Your task to perform on an android device: Set the phone to "Do not disturb". Image 0: 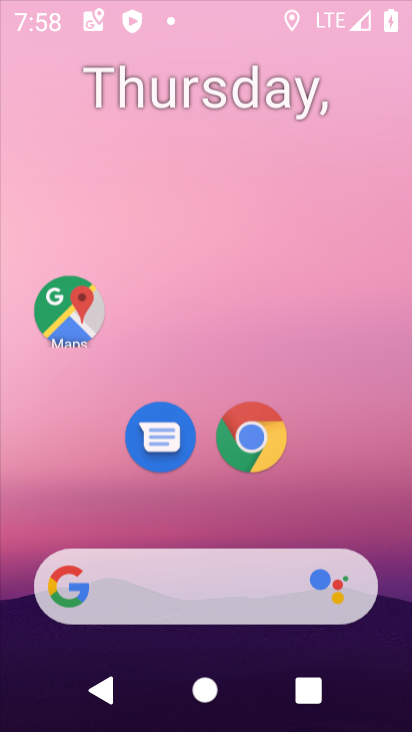
Step 0: click (293, 242)
Your task to perform on an android device: Set the phone to "Do not disturb". Image 1: 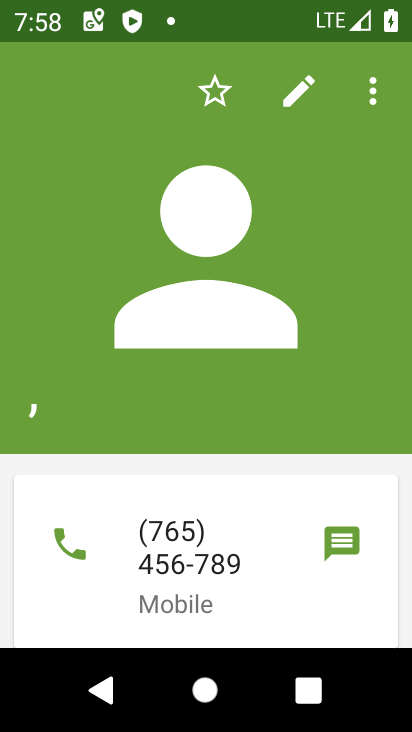
Step 1: press home button
Your task to perform on an android device: Set the phone to "Do not disturb". Image 2: 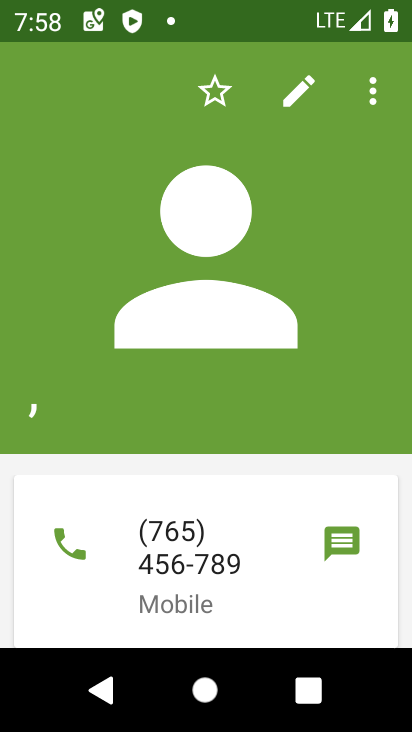
Step 2: press home button
Your task to perform on an android device: Set the phone to "Do not disturb". Image 3: 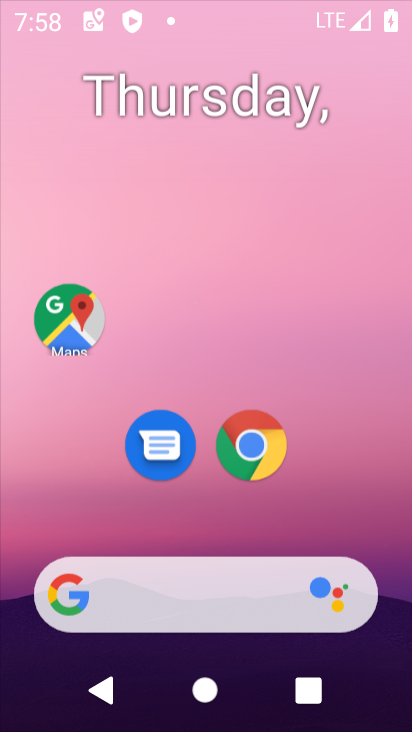
Step 3: press home button
Your task to perform on an android device: Set the phone to "Do not disturb". Image 4: 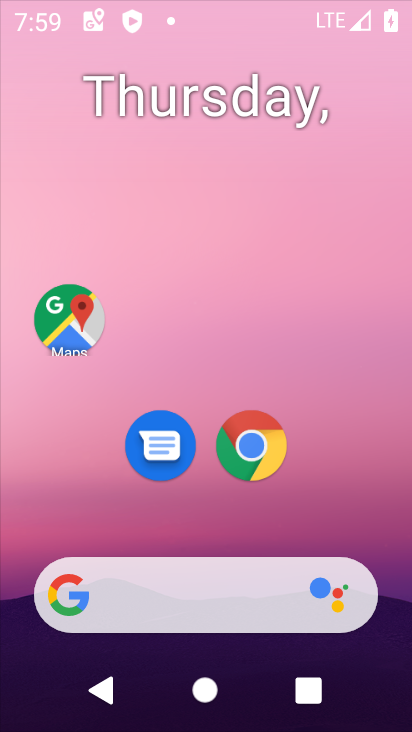
Step 4: press home button
Your task to perform on an android device: Set the phone to "Do not disturb". Image 5: 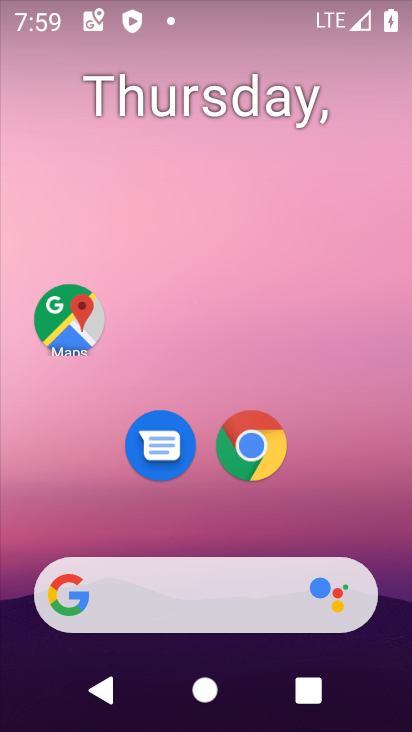
Step 5: drag from (201, 445) to (255, 158)
Your task to perform on an android device: Set the phone to "Do not disturb". Image 6: 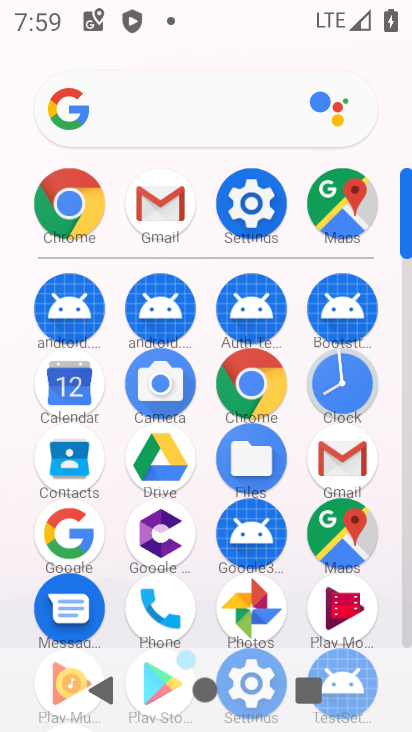
Step 6: click (249, 214)
Your task to perform on an android device: Set the phone to "Do not disturb". Image 7: 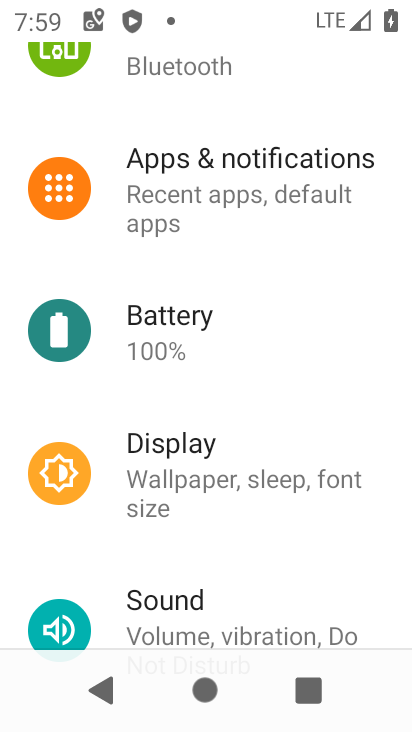
Step 7: click (261, 192)
Your task to perform on an android device: Set the phone to "Do not disturb". Image 8: 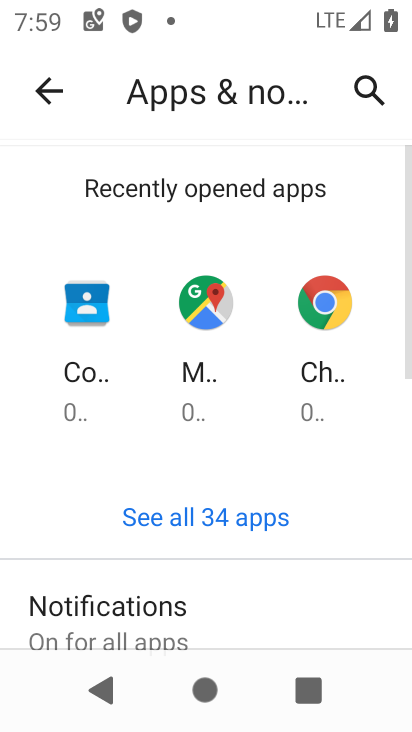
Step 8: drag from (224, 605) to (279, 310)
Your task to perform on an android device: Set the phone to "Do not disturb". Image 9: 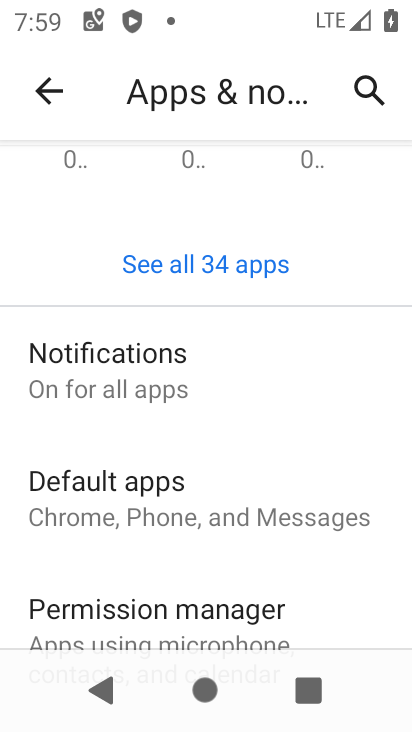
Step 9: click (171, 346)
Your task to perform on an android device: Set the phone to "Do not disturb". Image 10: 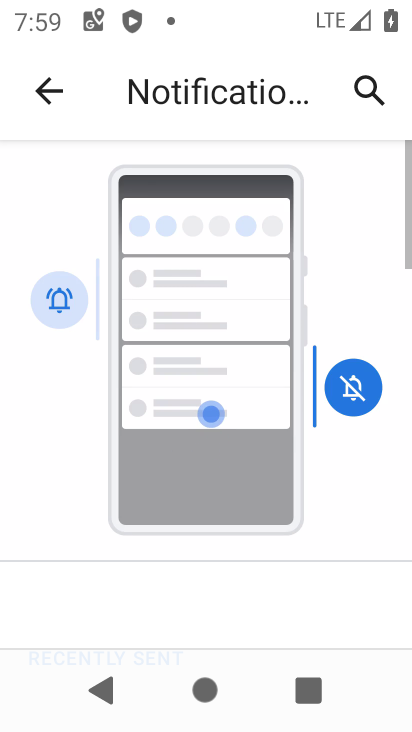
Step 10: drag from (273, 575) to (341, 244)
Your task to perform on an android device: Set the phone to "Do not disturb". Image 11: 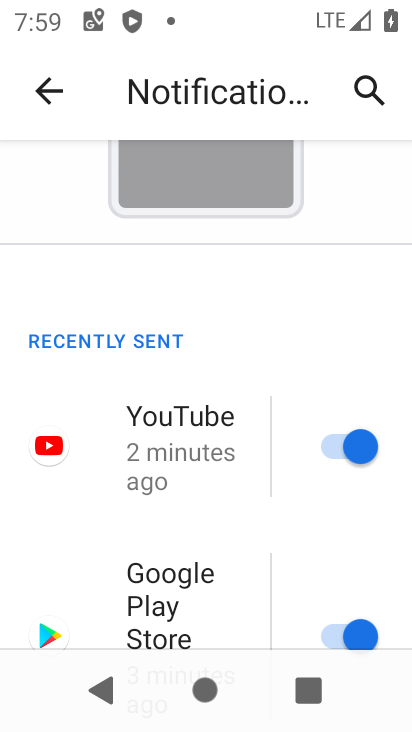
Step 11: drag from (243, 645) to (326, 199)
Your task to perform on an android device: Set the phone to "Do not disturb". Image 12: 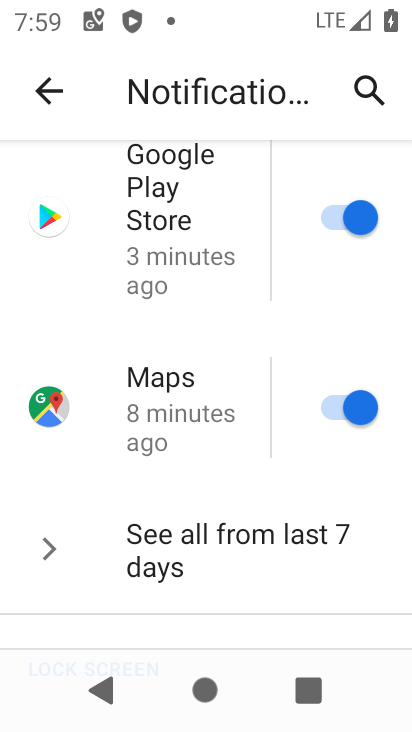
Step 12: drag from (217, 529) to (293, 152)
Your task to perform on an android device: Set the phone to "Do not disturb". Image 13: 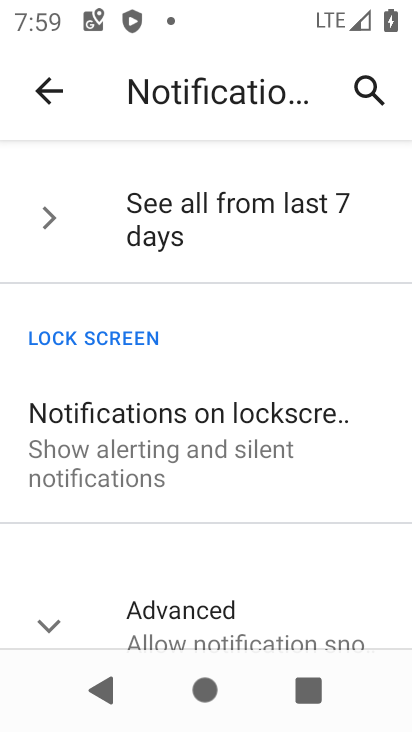
Step 13: click (207, 606)
Your task to perform on an android device: Set the phone to "Do not disturb". Image 14: 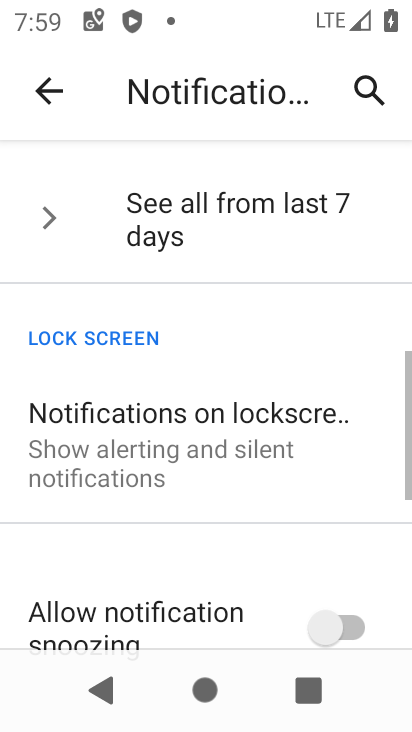
Step 14: drag from (206, 605) to (340, 69)
Your task to perform on an android device: Set the phone to "Do not disturb". Image 15: 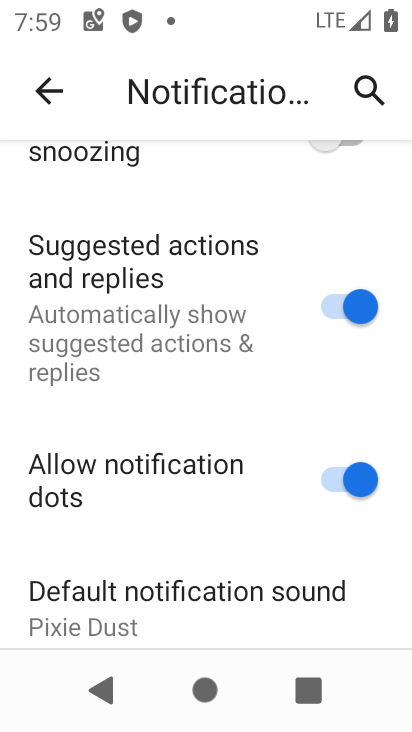
Step 15: drag from (213, 634) to (273, 209)
Your task to perform on an android device: Set the phone to "Do not disturb". Image 16: 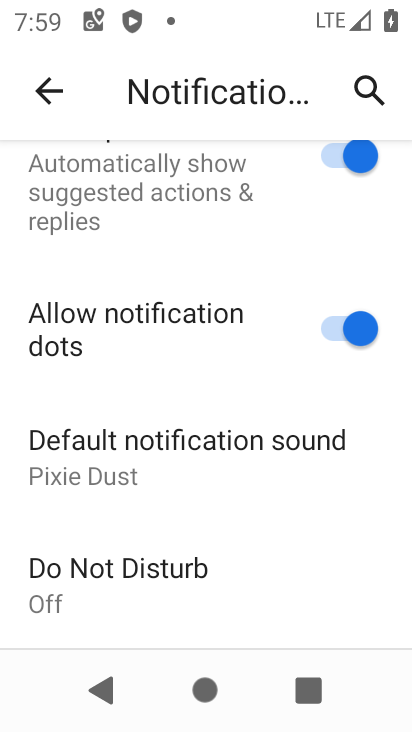
Step 16: click (123, 582)
Your task to perform on an android device: Set the phone to "Do not disturb". Image 17: 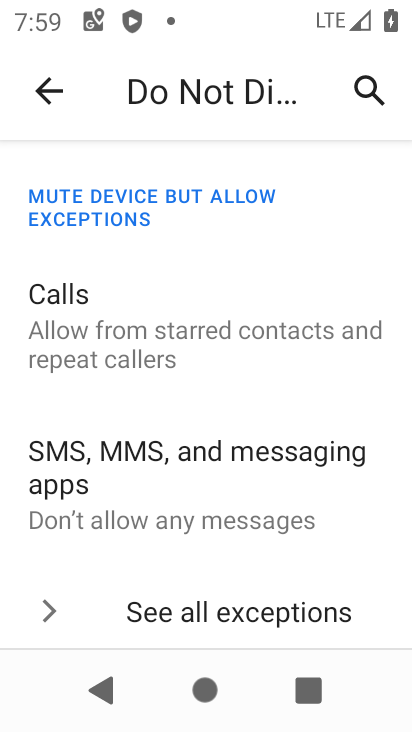
Step 17: drag from (222, 304) to (196, 574)
Your task to perform on an android device: Set the phone to "Do not disturb". Image 18: 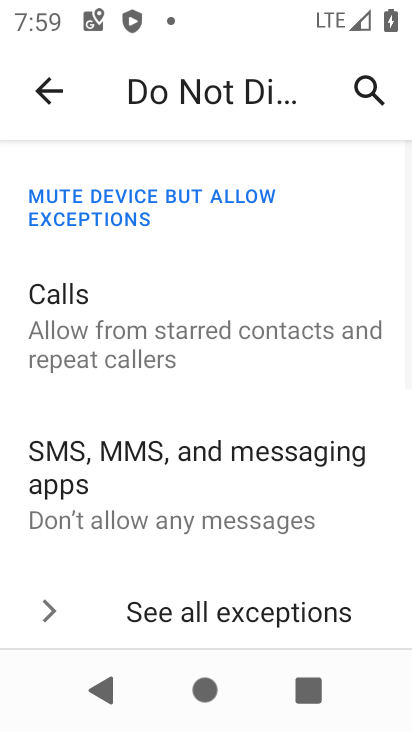
Step 18: drag from (198, 576) to (231, 222)
Your task to perform on an android device: Set the phone to "Do not disturb". Image 19: 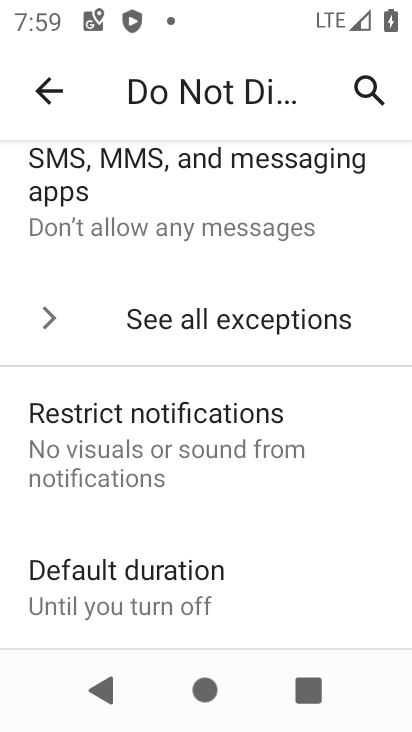
Step 19: drag from (177, 525) to (206, 324)
Your task to perform on an android device: Set the phone to "Do not disturb". Image 20: 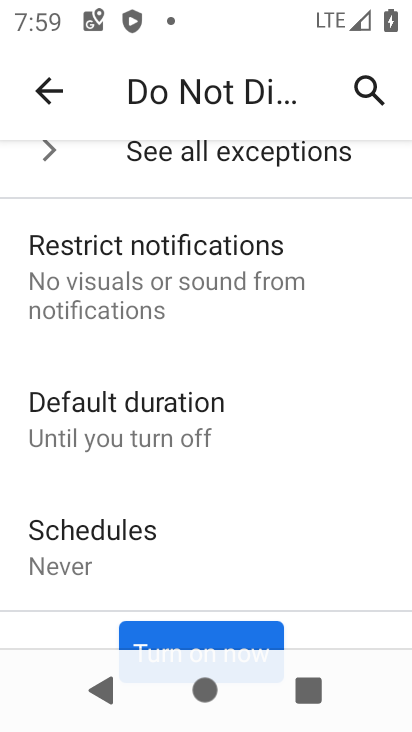
Step 20: drag from (188, 600) to (280, 212)
Your task to perform on an android device: Set the phone to "Do not disturb". Image 21: 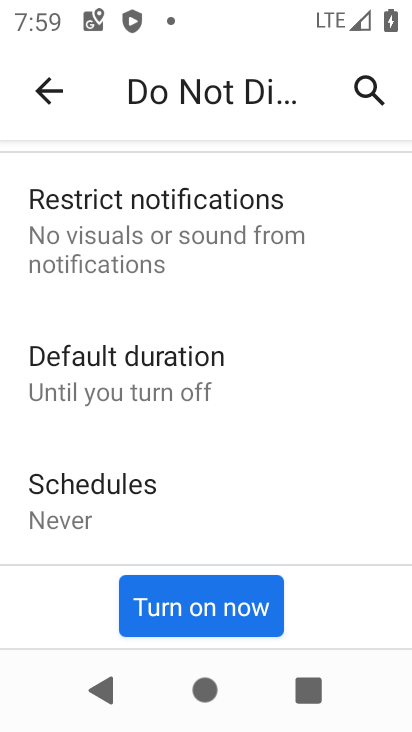
Step 21: click (192, 617)
Your task to perform on an android device: Set the phone to "Do not disturb". Image 22: 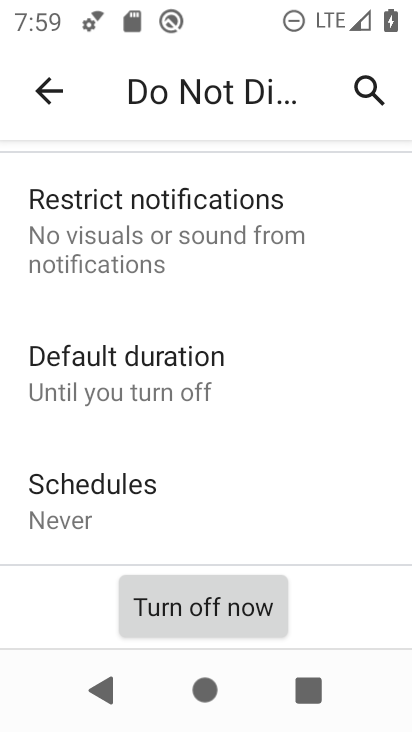
Step 22: click (222, 620)
Your task to perform on an android device: Set the phone to "Do not disturb". Image 23: 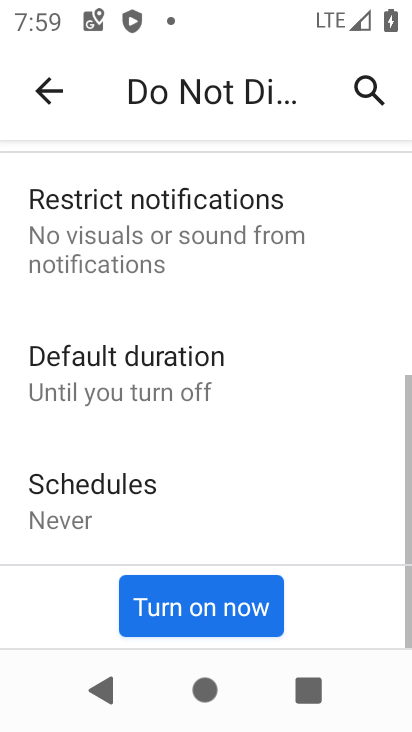
Step 23: task complete